Your task to perform on an android device: turn on data saver in the chrome app Image 0: 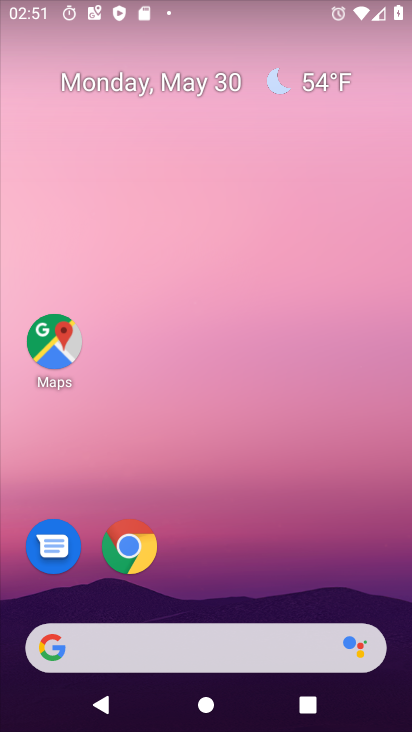
Step 0: click (136, 551)
Your task to perform on an android device: turn on data saver in the chrome app Image 1: 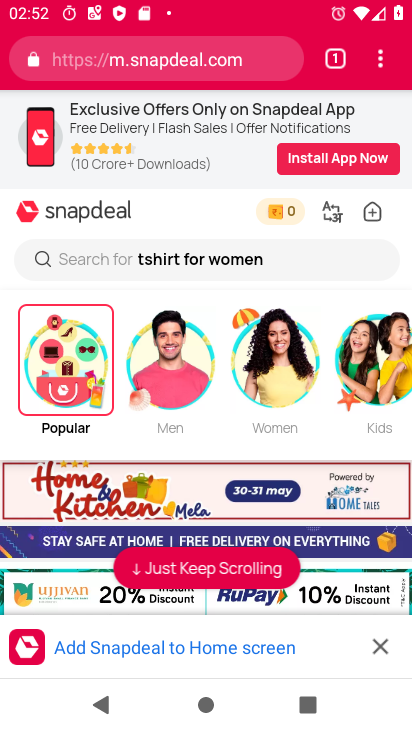
Step 1: click (382, 59)
Your task to perform on an android device: turn on data saver in the chrome app Image 2: 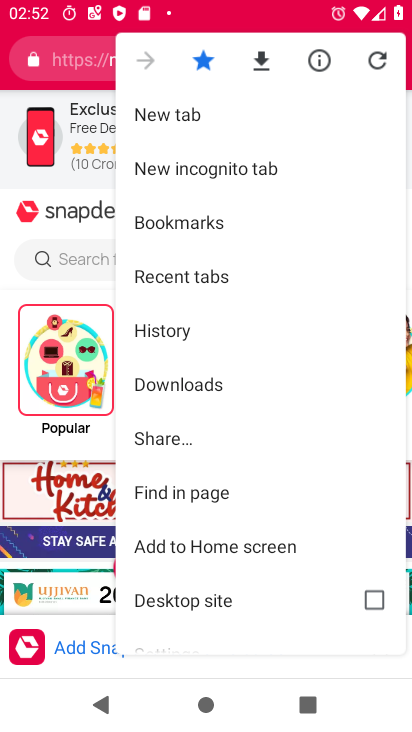
Step 2: drag from (258, 491) to (281, 243)
Your task to perform on an android device: turn on data saver in the chrome app Image 3: 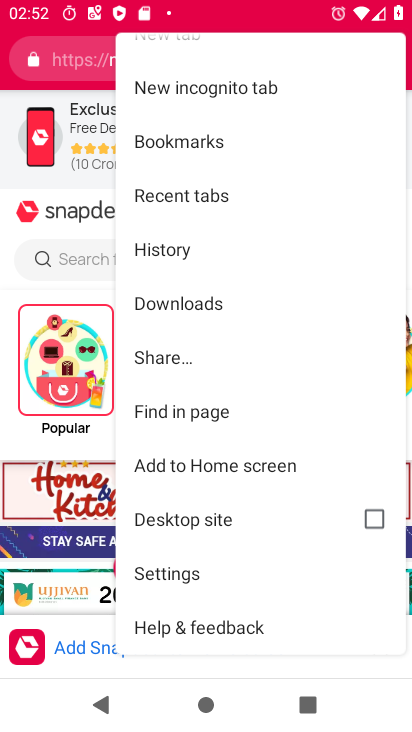
Step 3: click (214, 569)
Your task to perform on an android device: turn on data saver in the chrome app Image 4: 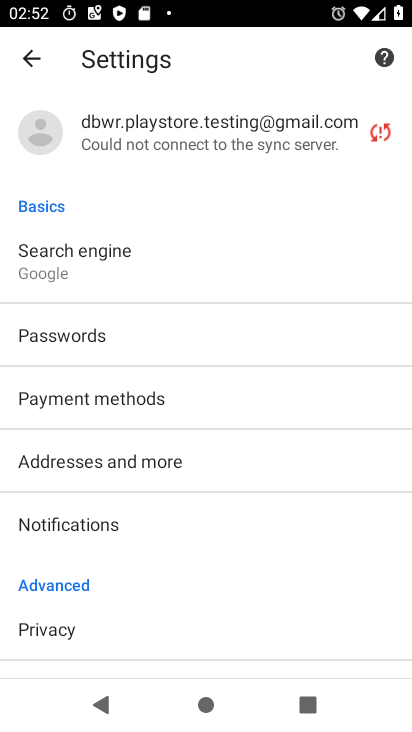
Step 4: drag from (165, 615) to (219, 147)
Your task to perform on an android device: turn on data saver in the chrome app Image 5: 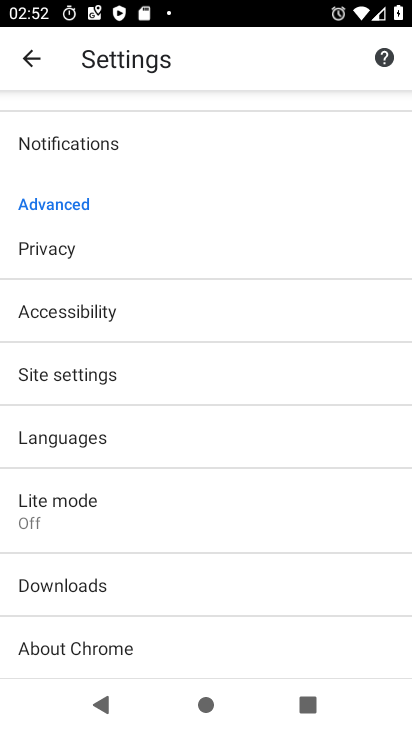
Step 5: click (100, 522)
Your task to perform on an android device: turn on data saver in the chrome app Image 6: 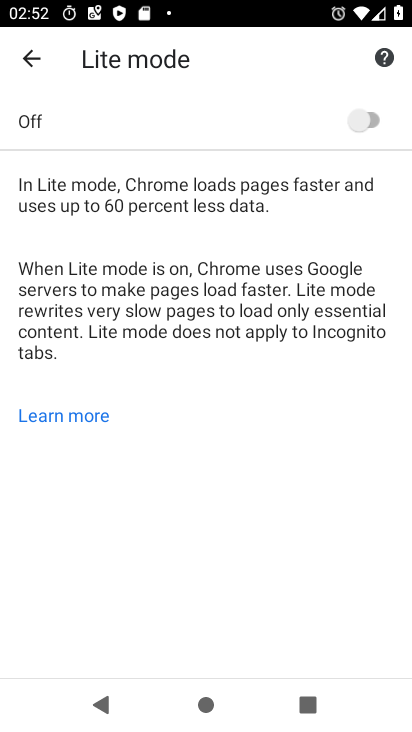
Step 6: click (366, 113)
Your task to perform on an android device: turn on data saver in the chrome app Image 7: 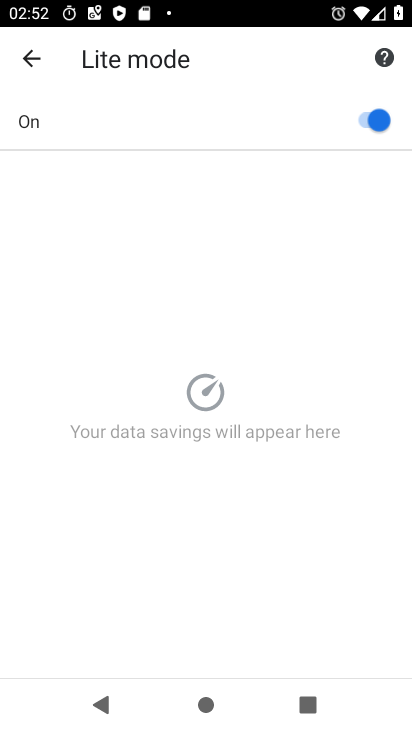
Step 7: task complete